Your task to perform on an android device: Go to Maps Image 0: 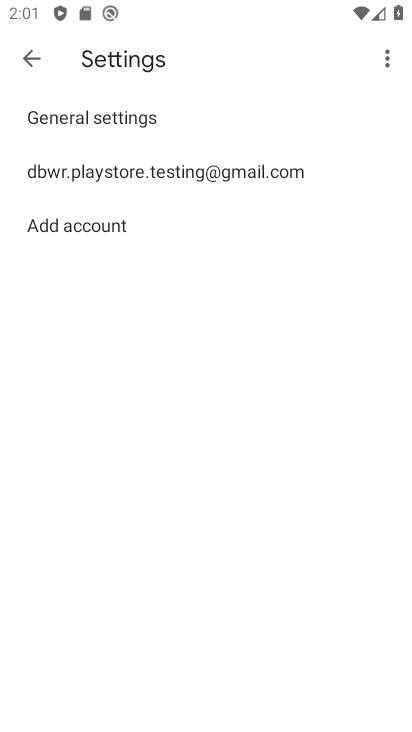
Step 0: press home button
Your task to perform on an android device: Go to Maps Image 1: 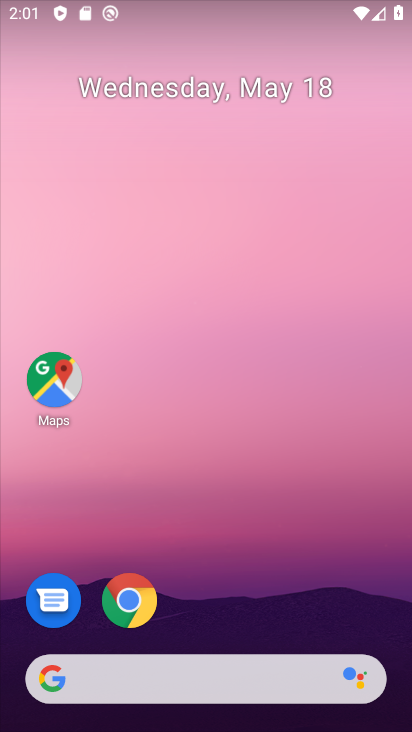
Step 1: click (68, 374)
Your task to perform on an android device: Go to Maps Image 2: 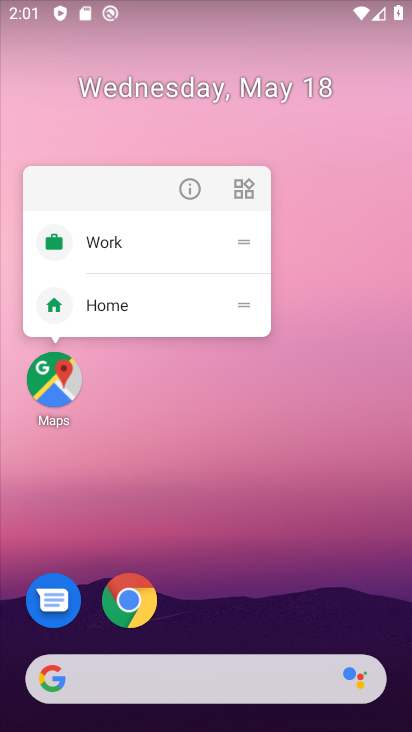
Step 2: click (57, 385)
Your task to perform on an android device: Go to Maps Image 3: 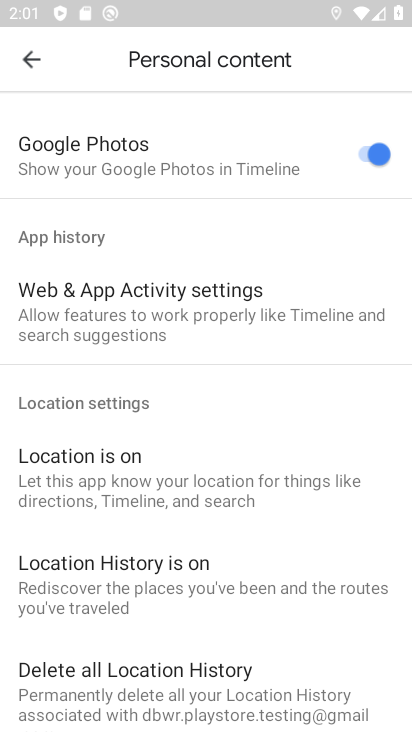
Step 3: click (30, 55)
Your task to perform on an android device: Go to Maps Image 4: 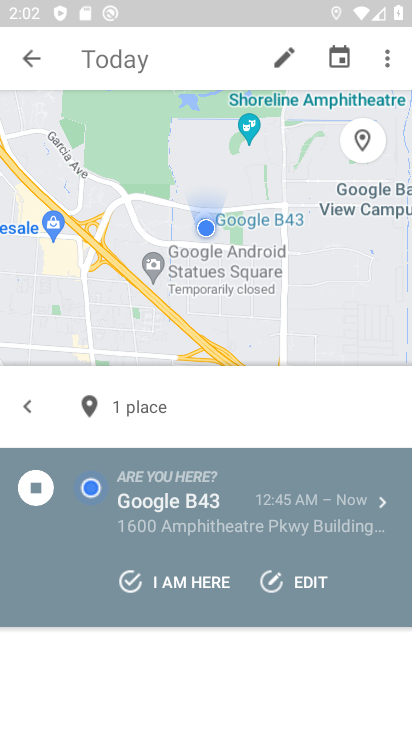
Step 4: task complete